Your task to perform on an android device: check data usage Image 0: 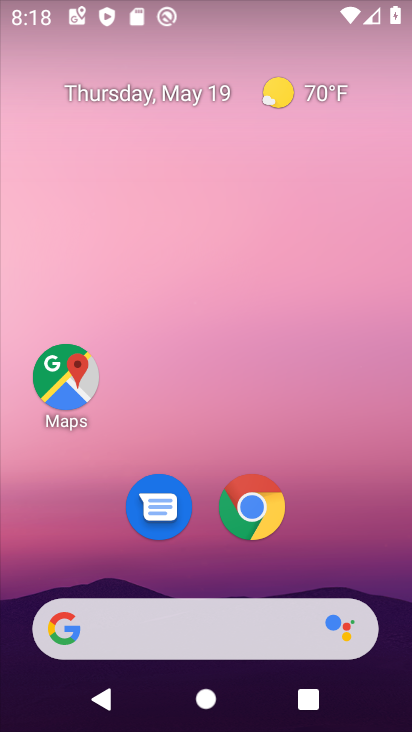
Step 0: drag from (195, 578) to (222, 243)
Your task to perform on an android device: check data usage Image 1: 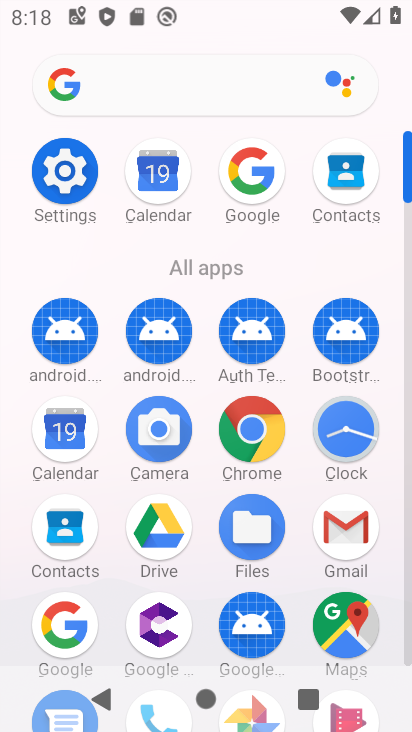
Step 1: click (78, 168)
Your task to perform on an android device: check data usage Image 2: 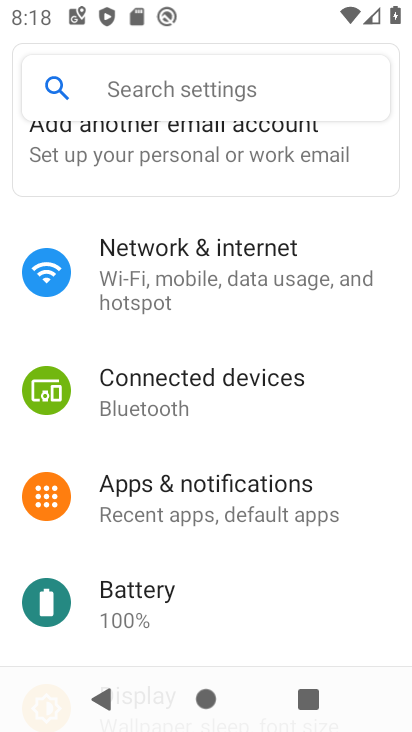
Step 2: drag from (238, 556) to (252, 330)
Your task to perform on an android device: check data usage Image 3: 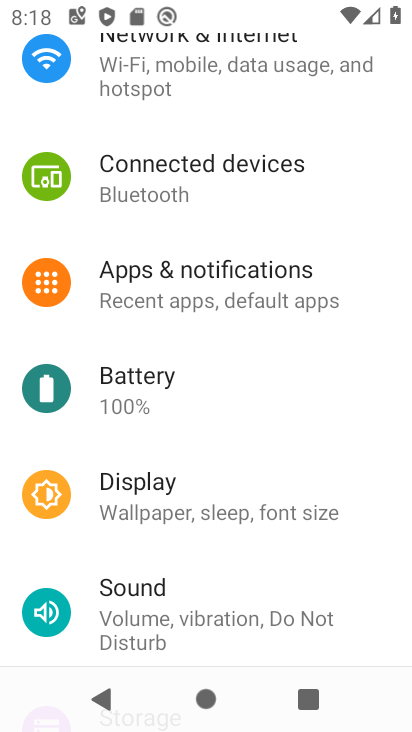
Step 3: click (210, 90)
Your task to perform on an android device: check data usage Image 4: 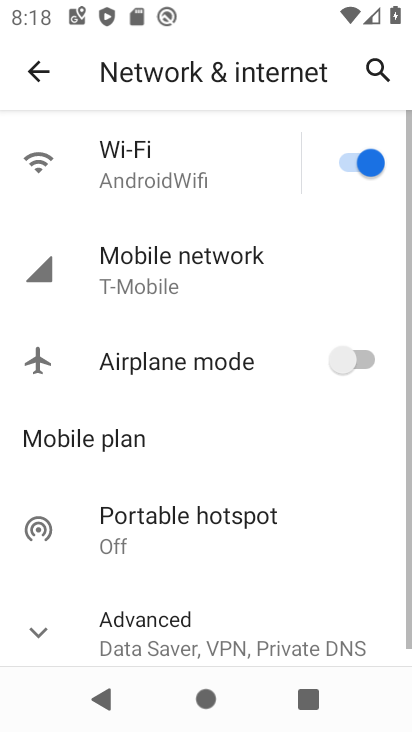
Step 4: click (209, 272)
Your task to perform on an android device: check data usage Image 5: 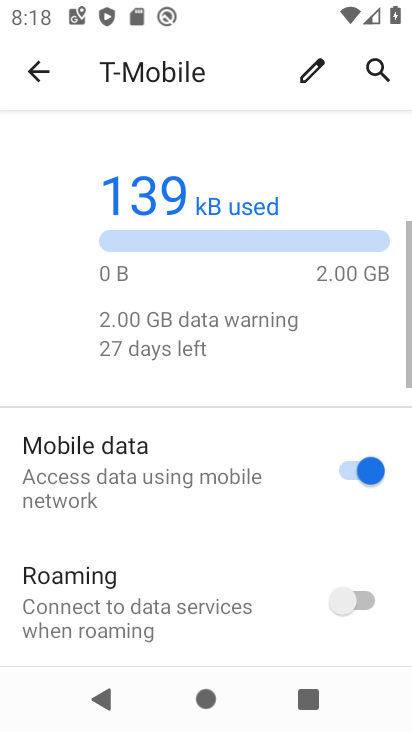
Step 5: drag from (188, 605) to (208, 361)
Your task to perform on an android device: check data usage Image 6: 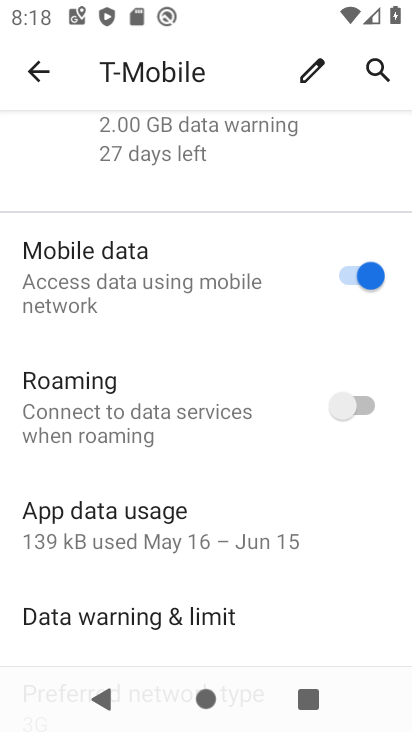
Step 6: drag from (194, 563) to (216, 349)
Your task to perform on an android device: check data usage Image 7: 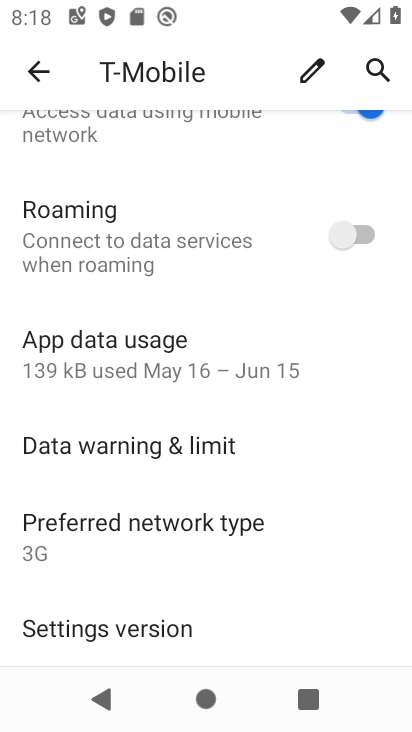
Step 7: click (184, 524)
Your task to perform on an android device: check data usage Image 8: 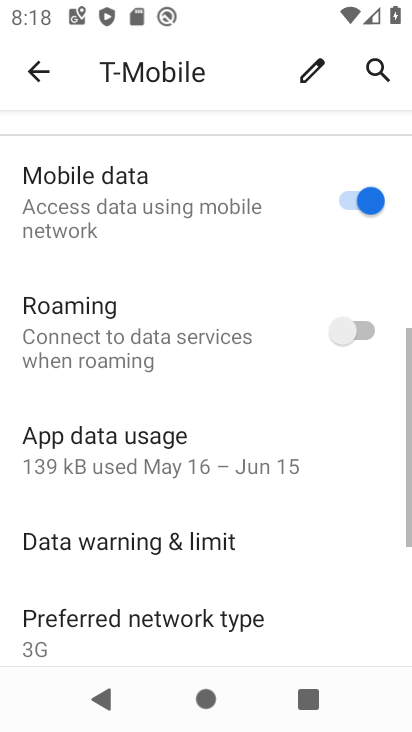
Step 8: drag from (134, 290) to (158, 531)
Your task to perform on an android device: check data usage Image 9: 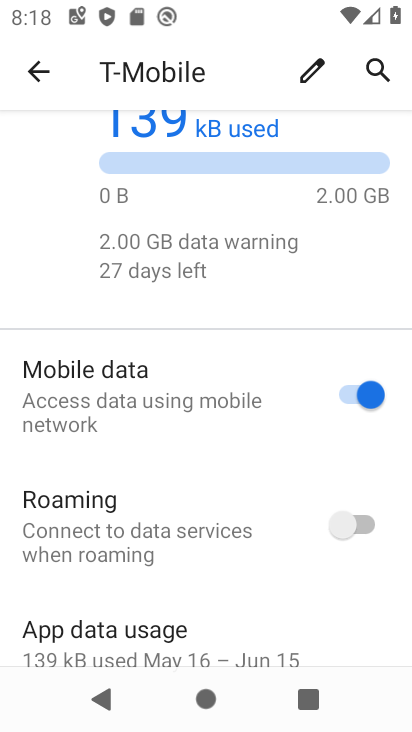
Step 9: click (180, 640)
Your task to perform on an android device: check data usage Image 10: 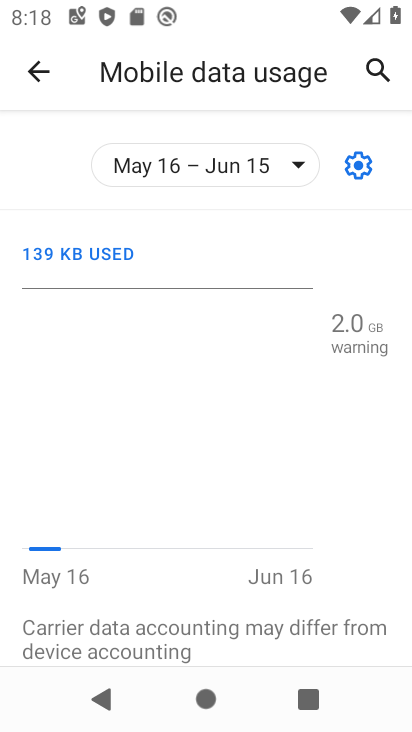
Step 10: task complete